Your task to perform on an android device: Go to sound settings Image 0: 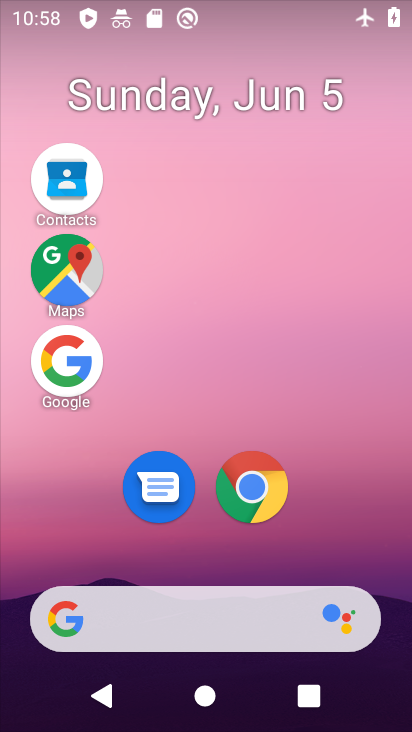
Step 0: drag from (195, 467) to (210, 151)
Your task to perform on an android device: Go to sound settings Image 1: 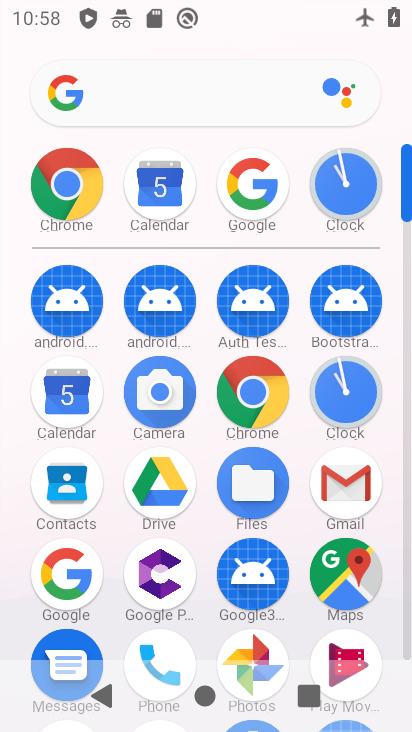
Step 1: drag from (195, 556) to (263, 138)
Your task to perform on an android device: Go to sound settings Image 2: 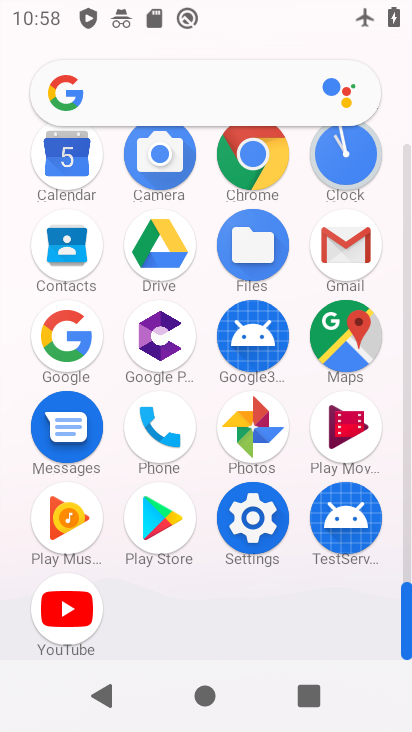
Step 2: click (249, 545)
Your task to perform on an android device: Go to sound settings Image 3: 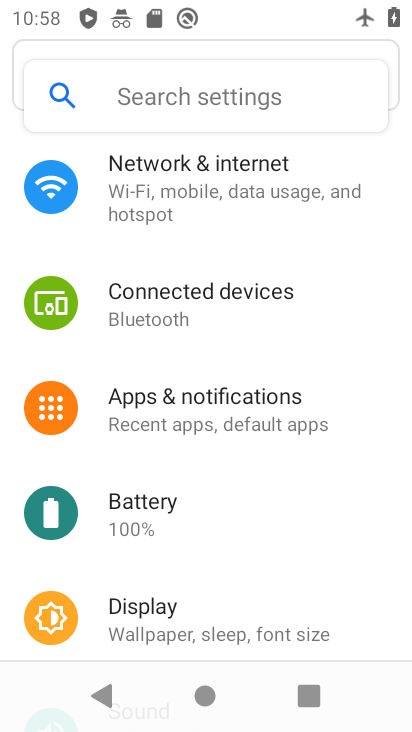
Step 3: drag from (206, 575) to (248, 167)
Your task to perform on an android device: Go to sound settings Image 4: 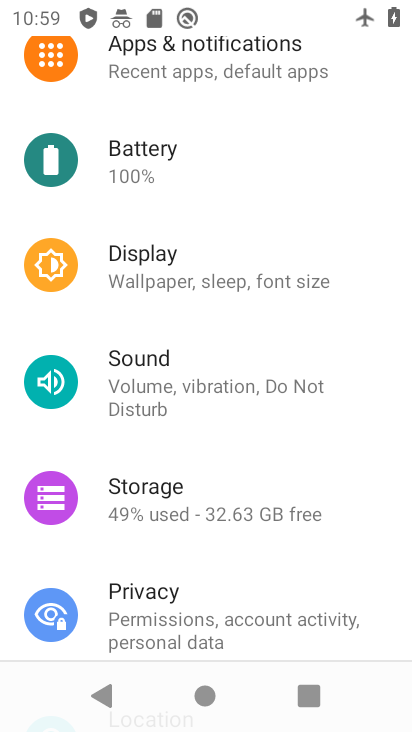
Step 4: drag from (226, 537) to (255, 173)
Your task to perform on an android device: Go to sound settings Image 5: 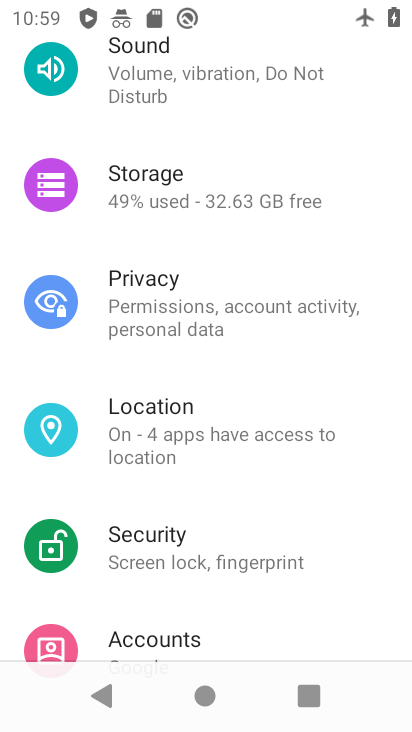
Step 5: click (255, 81)
Your task to perform on an android device: Go to sound settings Image 6: 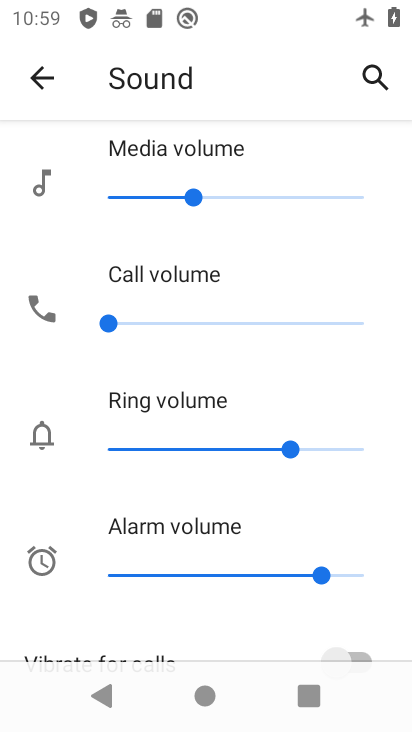
Step 6: task complete